Your task to perform on an android device: When is my next meeting? Image 0: 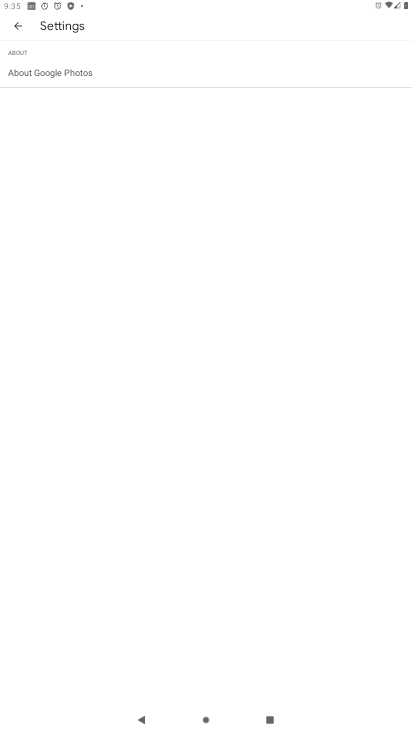
Step 0: press home button
Your task to perform on an android device: When is my next meeting? Image 1: 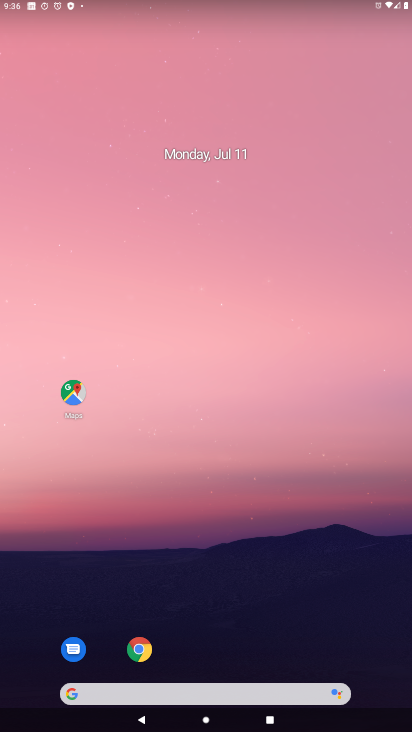
Step 1: drag from (190, 684) to (283, 156)
Your task to perform on an android device: When is my next meeting? Image 2: 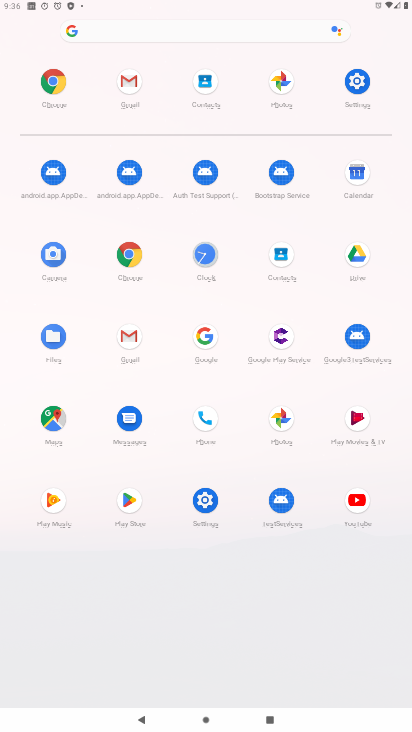
Step 2: click (358, 173)
Your task to perform on an android device: When is my next meeting? Image 3: 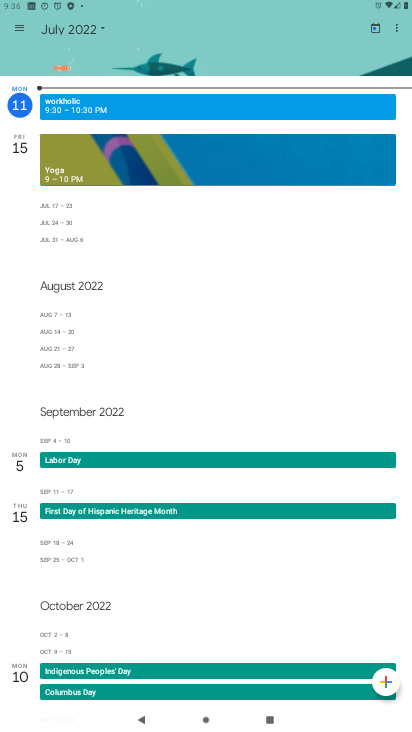
Step 3: click (377, 25)
Your task to perform on an android device: When is my next meeting? Image 4: 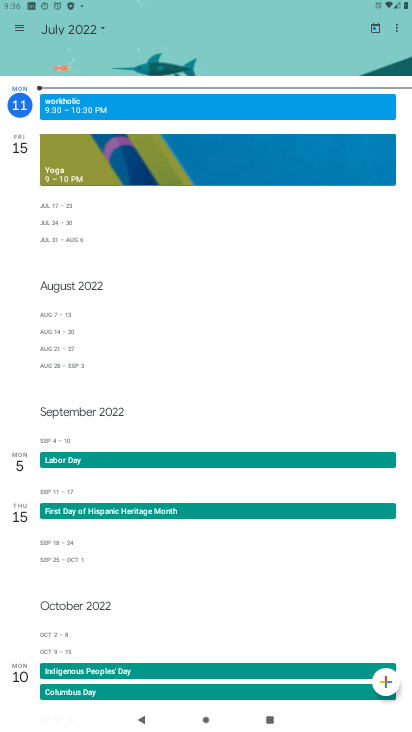
Step 4: click (377, 25)
Your task to perform on an android device: When is my next meeting? Image 5: 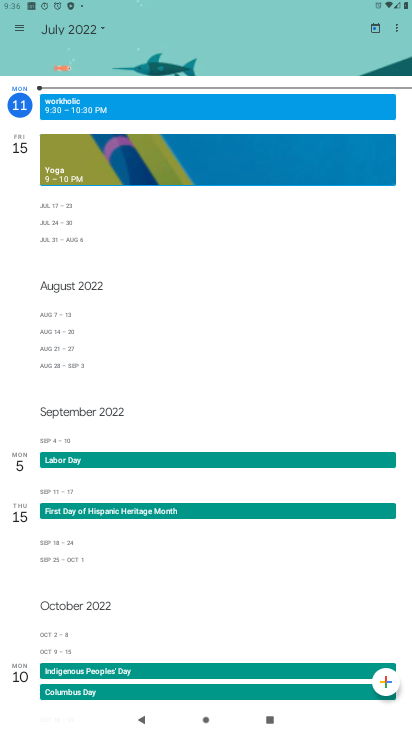
Step 5: click (103, 31)
Your task to perform on an android device: When is my next meeting? Image 6: 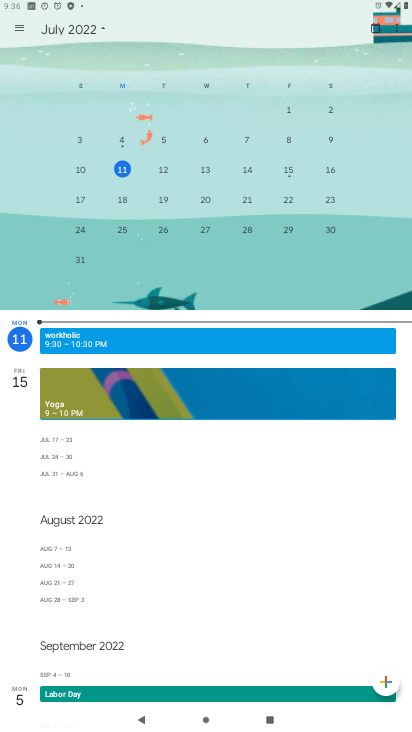
Step 6: click (290, 174)
Your task to perform on an android device: When is my next meeting? Image 7: 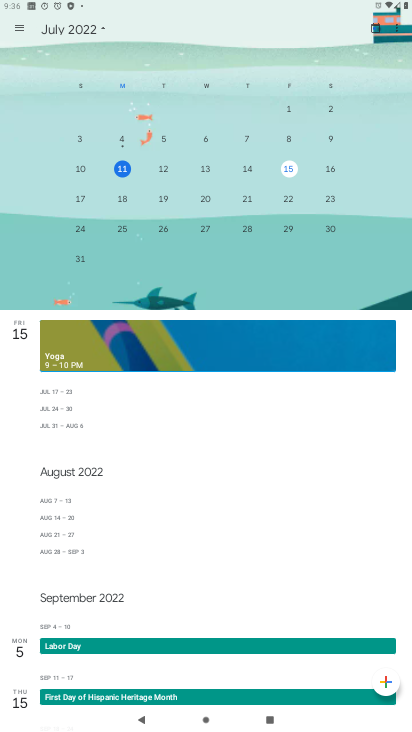
Step 7: task complete